Your task to perform on an android device: allow notifications from all sites in the chrome app Image 0: 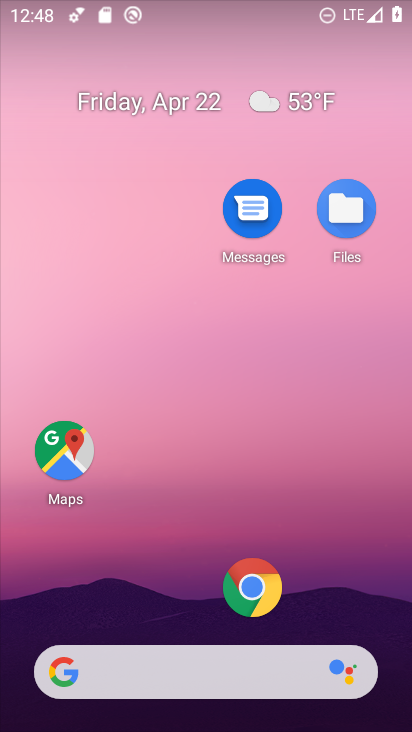
Step 0: click (251, 592)
Your task to perform on an android device: allow notifications from all sites in the chrome app Image 1: 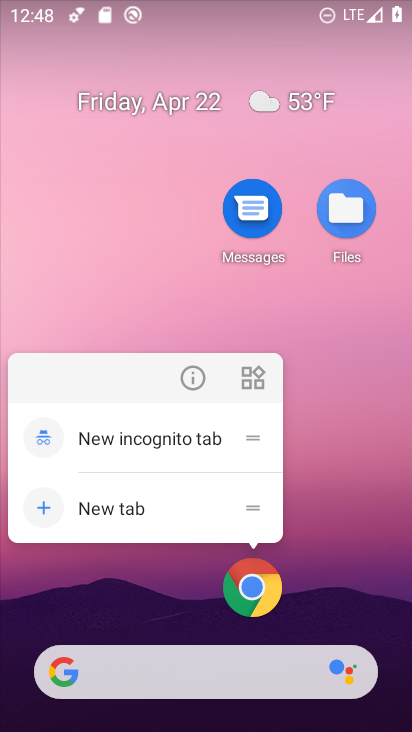
Step 1: click (202, 376)
Your task to perform on an android device: allow notifications from all sites in the chrome app Image 2: 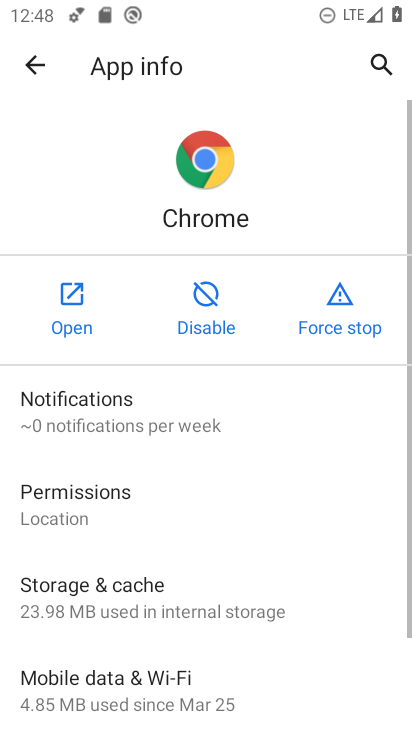
Step 2: click (84, 308)
Your task to perform on an android device: allow notifications from all sites in the chrome app Image 3: 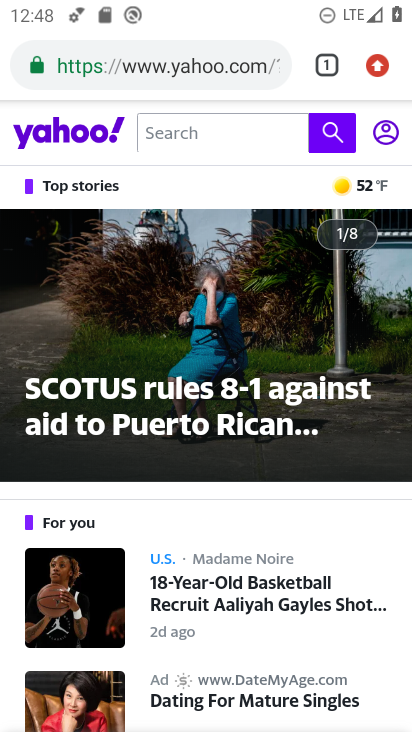
Step 3: click (373, 73)
Your task to perform on an android device: allow notifications from all sites in the chrome app Image 4: 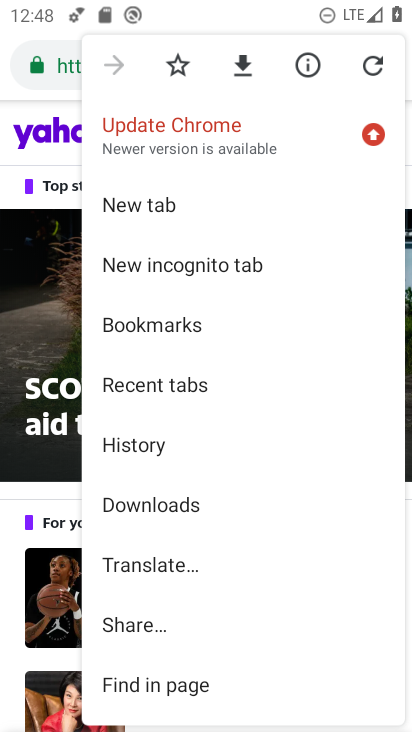
Step 4: drag from (139, 646) to (180, 309)
Your task to perform on an android device: allow notifications from all sites in the chrome app Image 5: 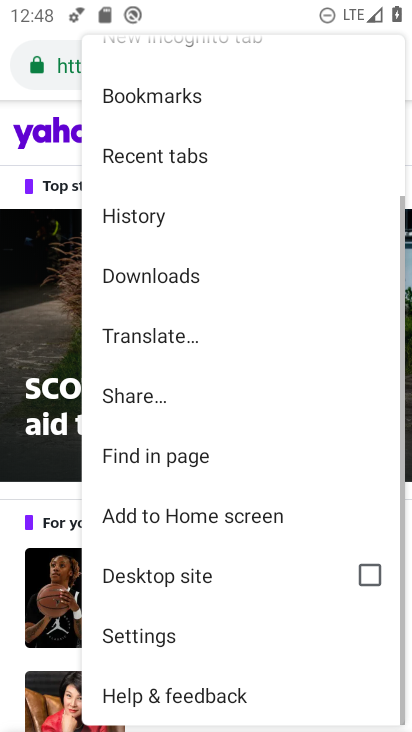
Step 5: click (140, 632)
Your task to perform on an android device: allow notifications from all sites in the chrome app Image 6: 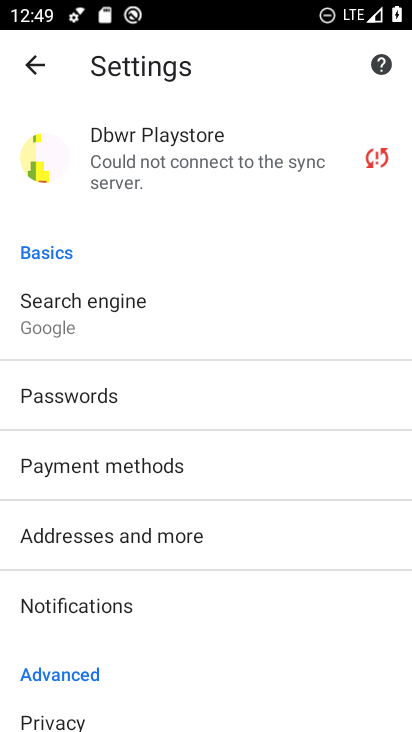
Step 6: drag from (102, 703) to (194, 353)
Your task to perform on an android device: allow notifications from all sites in the chrome app Image 7: 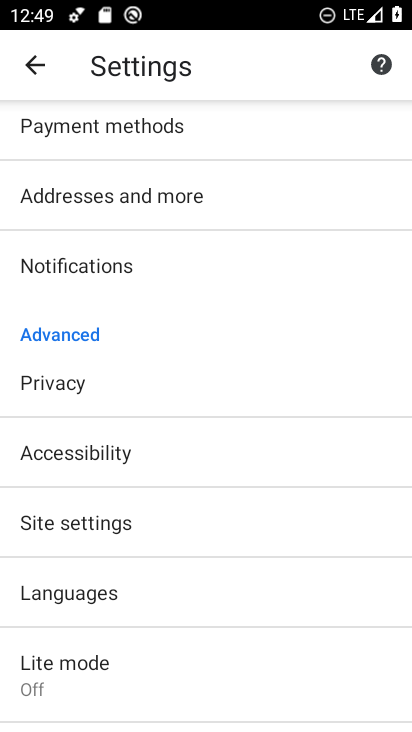
Step 7: drag from (95, 576) to (156, 283)
Your task to perform on an android device: allow notifications from all sites in the chrome app Image 8: 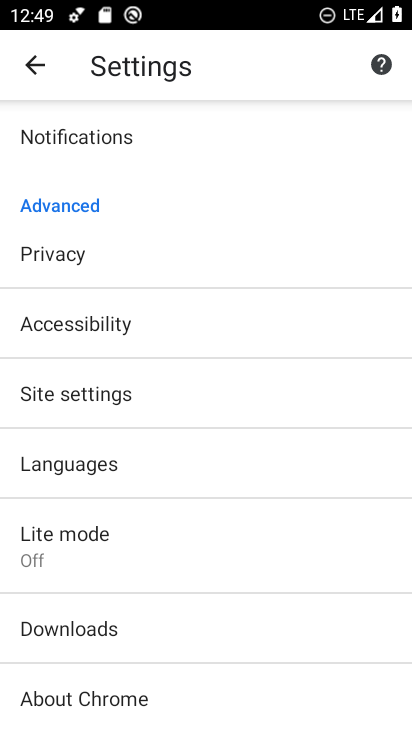
Step 8: drag from (104, 636) to (143, 393)
Your task to perform on an android device: allow notifications from all sites in the chrome app Image 9: 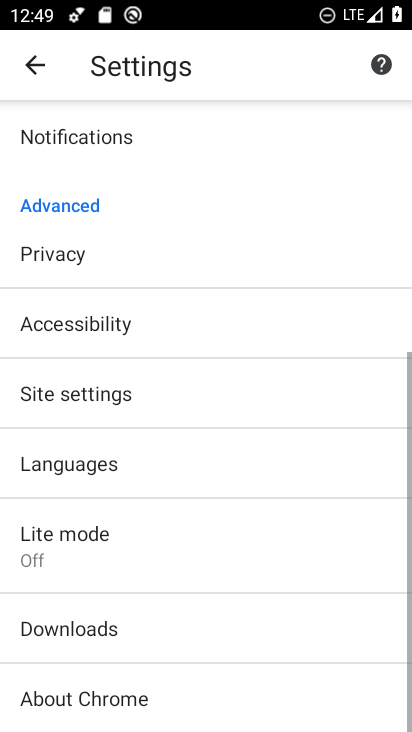
Step 9: click (137, 138)
Your task to perform on an android device: allow notifications from all sites in the chrome app Image 10: 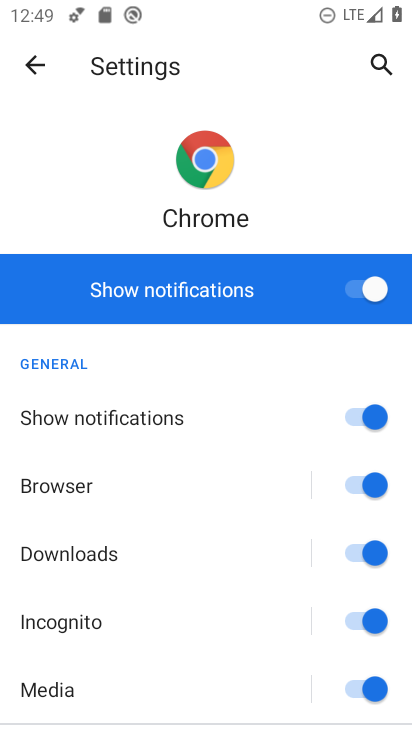
Step 10: task complete